Your task to perform on an android device: check out phone information Image 0: 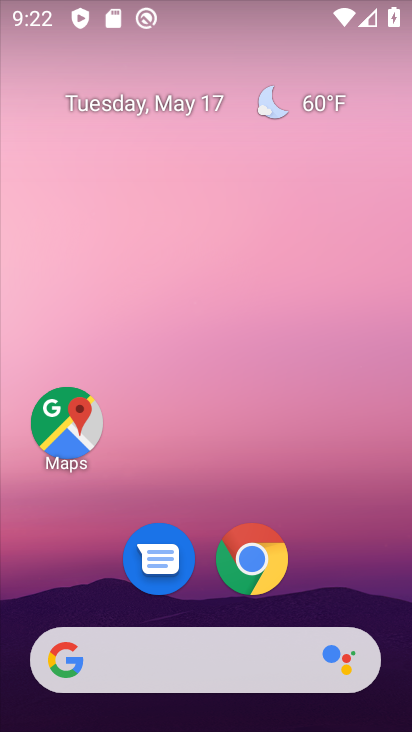
Step 0: drag from (322, 452) to (313, 110)
Your task to perform on an android device: check out phone information Image 1: 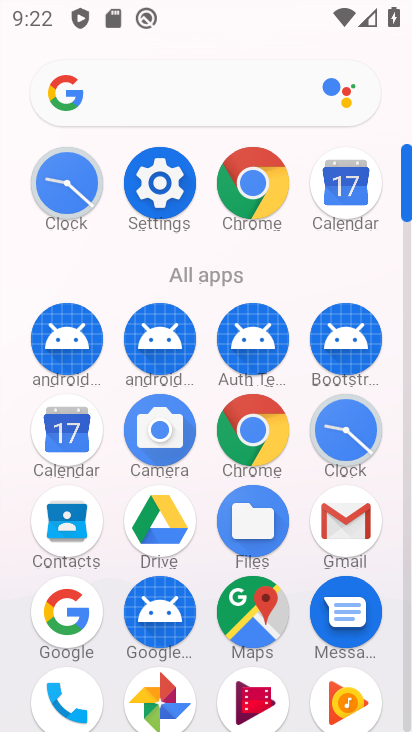
Step 1: click (65, 693)
Your task to perform on an android device: check out phone information Image 2: 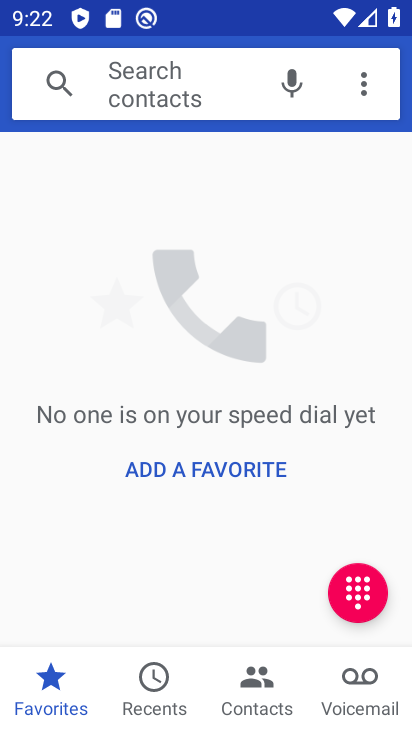
Step 2: press home button
Your task to perform on an android device: check out phone information Image 3: 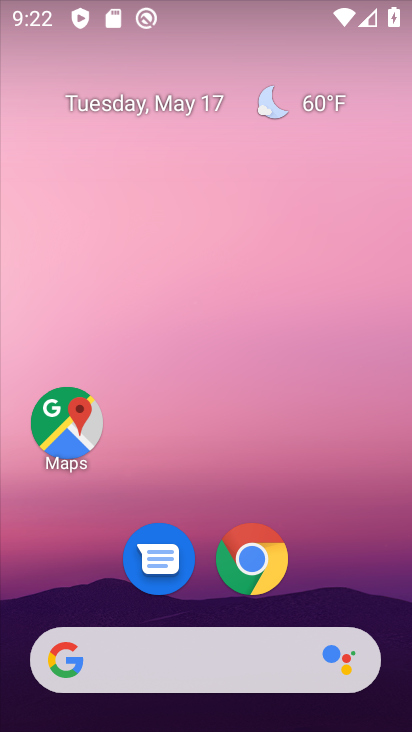
Step 3: drag from (315, 489) to (322, 136)
Your task to perform on an android device: check out phone information Image 4: 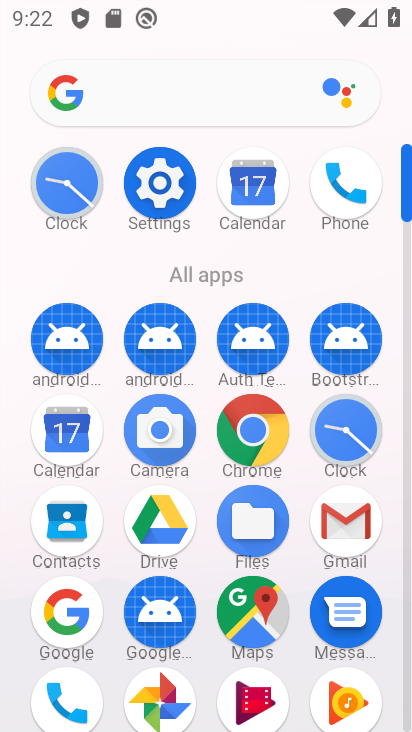
Step 4: click (79, 682)
Your task to perform on an android device: check out phone information Image 5: 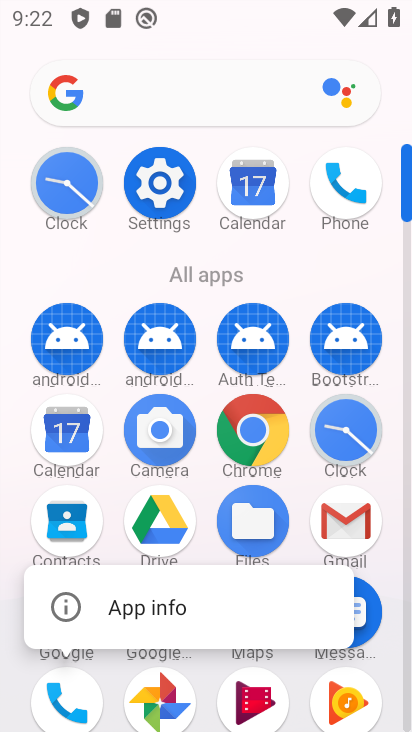
Step 5: click (149, 611)
Your task to perform on an android device: check out phone information Image 6: 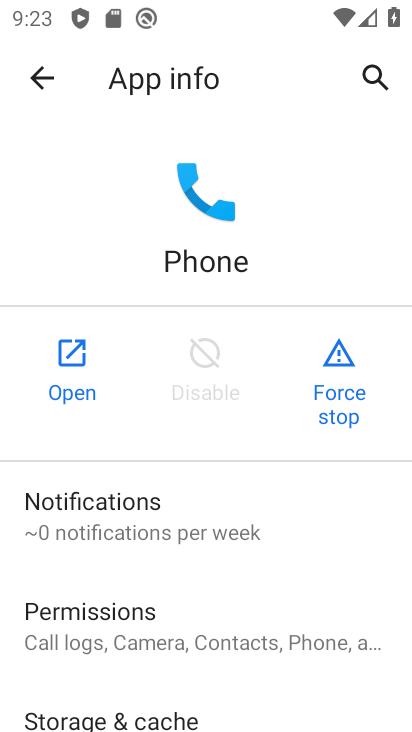
Step 6: task complete